Your task to perform on an android device: change the clock display to show seconds Image 0: 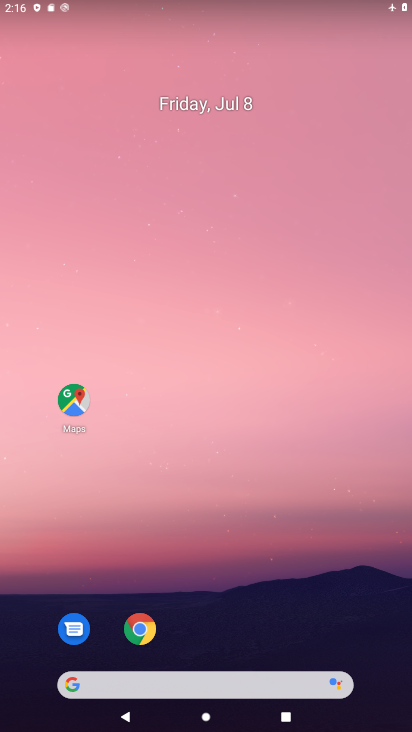
Step 0: drag from (26, 695) to (223, 66)
Your task to perform on an android device: change the clock display to show seconds Image 1: 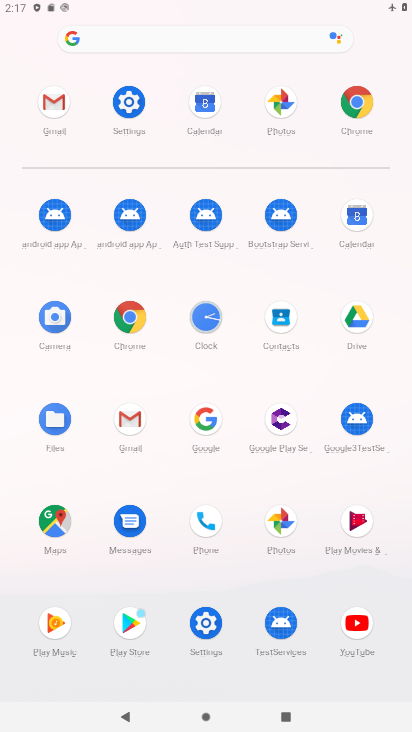
Step 1: click (211, 305)
Your task to perform on an android device: change the clock display to show seconds Image 2: 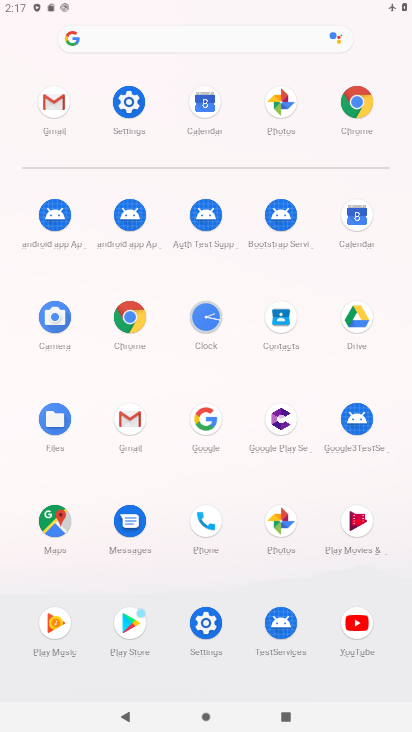
Step 2: click (201, 315)
Your task to perform on an android device: change the clock display to show seconds Image 3: 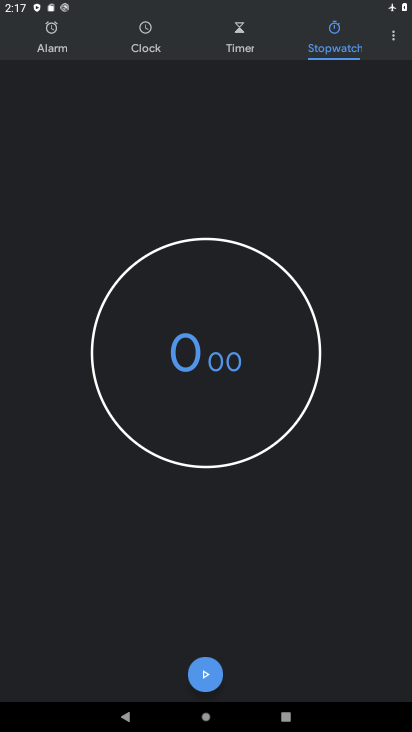
Step 3: click (147, 38)
Your task to perform on an android device: change the clock display to show seconds Image 4: 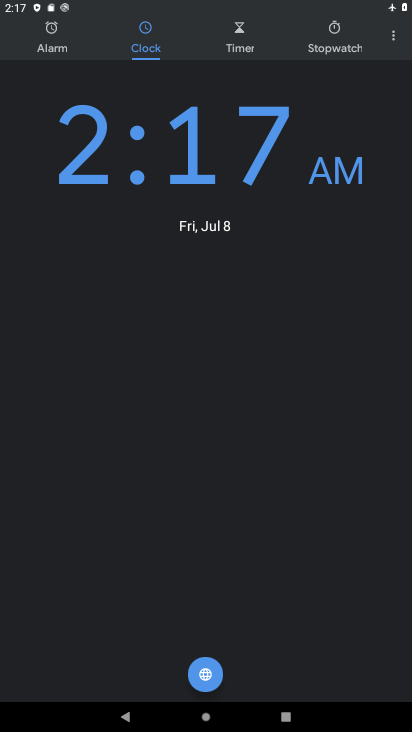
Step 4: click (390, 34)
Your task to perform on an android device: change the clock display to show seconds Image 5: 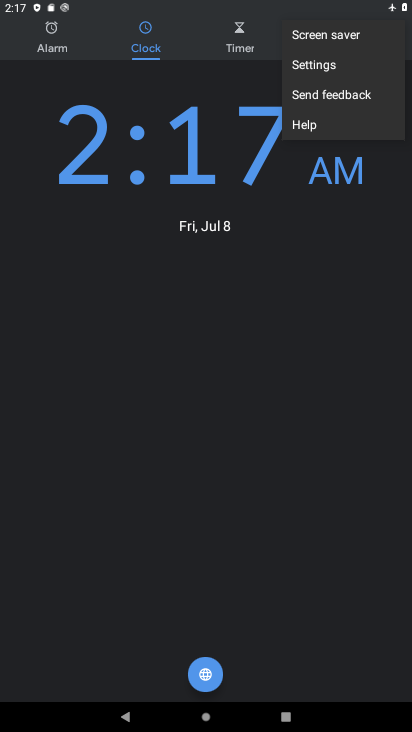
Step 5: click (311, 65)
Your task to perform on an android device: change the clock display to show seconds Image 6: 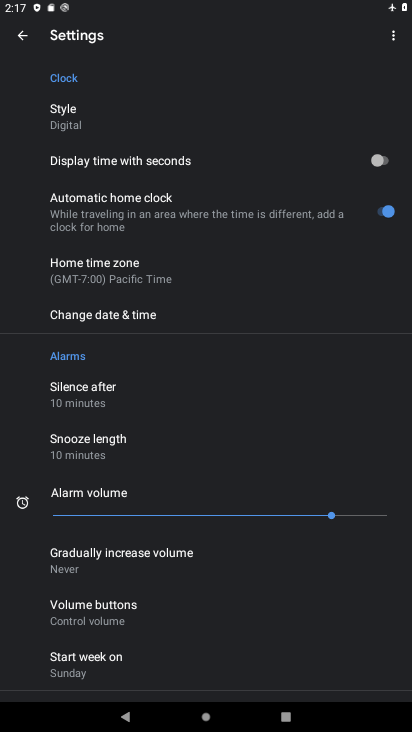
Step 6: click (378, 161)
Your task to perform on an android device: change the clock display to show seconds Image 7: 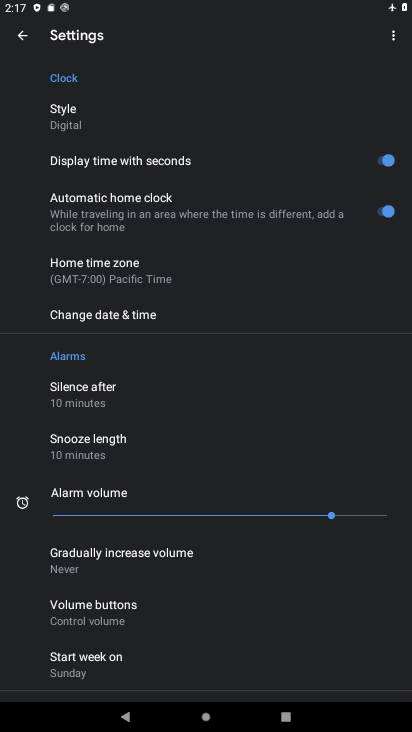
Step 7: task complete